Your task to perform on an android device: Open network settings Image 0: 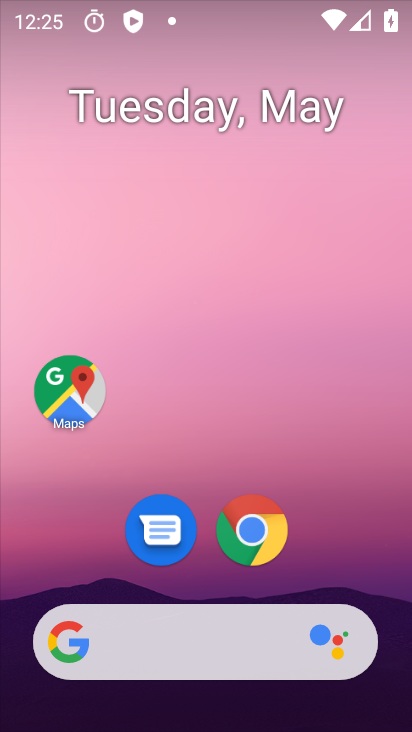
Step 0: drag from (352, 532) to (235, 56)
Your task to perform on an android device: Open network settings Image 1: 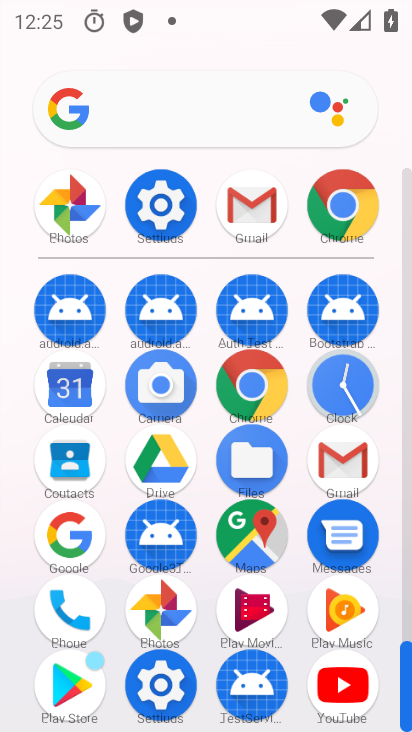
Step 1: drag from (23, 579) to (8, 247)
Your task to perform on an android device: Open network settings Image 2: 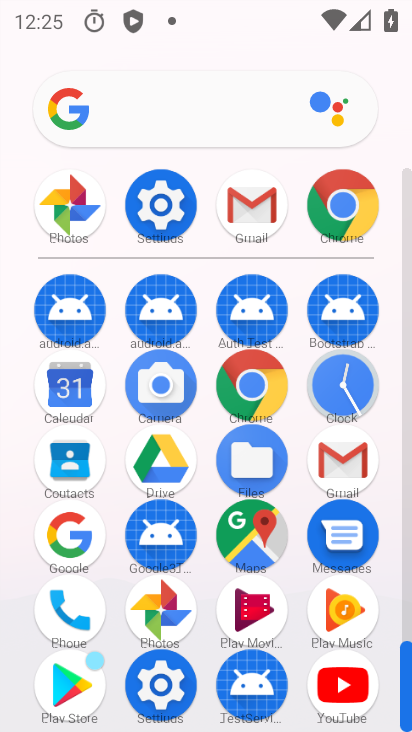
Step 2: click (162, 679)
Your task to perform on an android device: Open network settings Image 3: 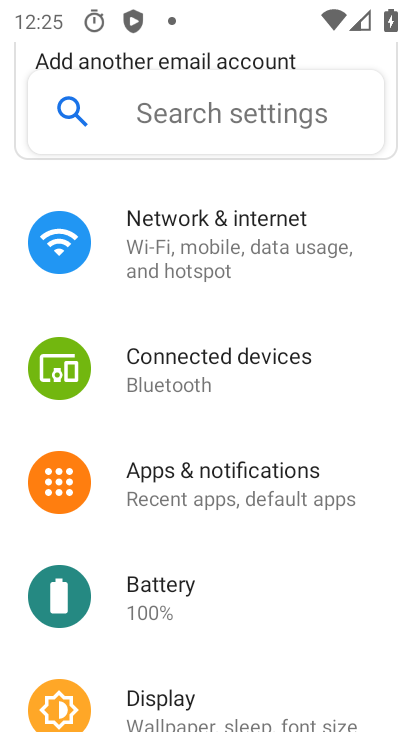
Step 3: drag from (281, 245) to (251, 604)
Your task to perform on an android device: Open network settings Image 4: 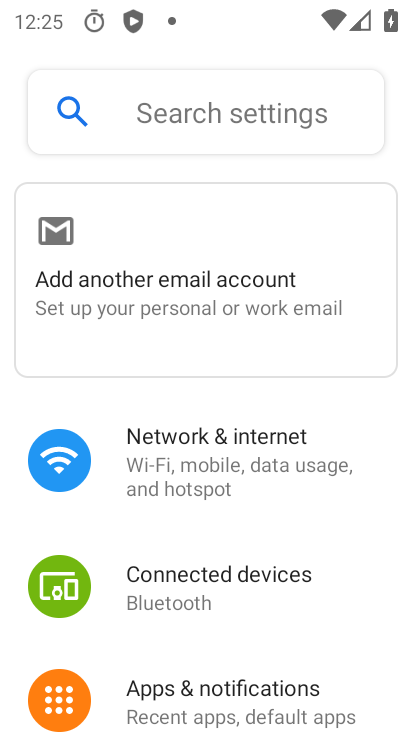
Step 4: click (246, 461)
Your task to perform on an android device: Open network settings Image 5: 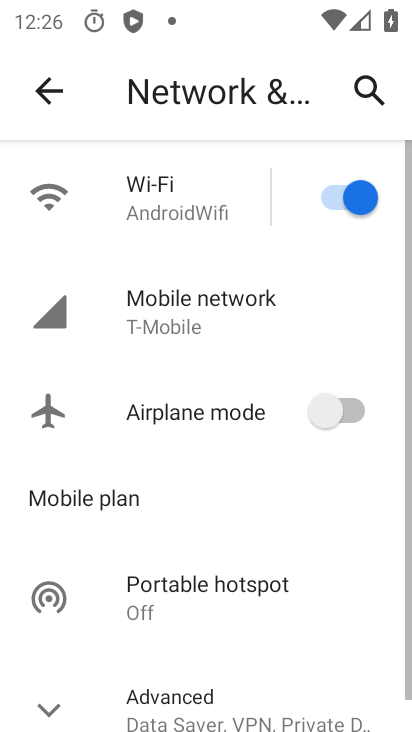
Step 5: click (226, 286)
Your task to perform on an android device: Open network settings Image 6: 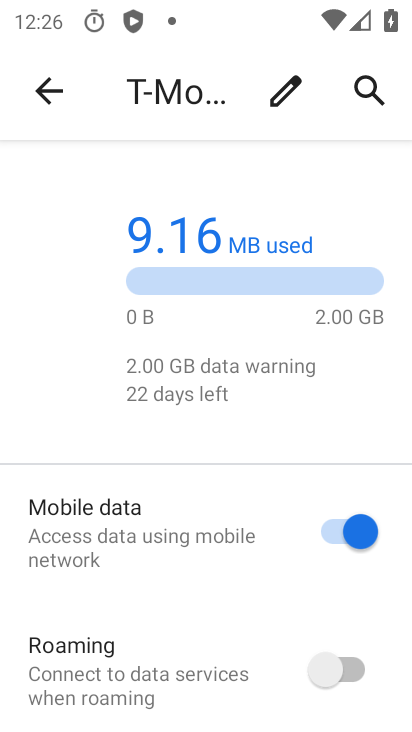
Step 6: drag from (209, 567) to (237, 185)
Your task to perform on an android device: Open network settings Image 7: 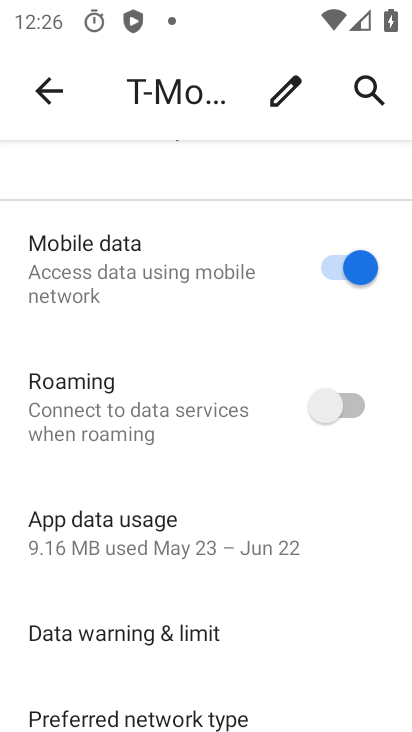
Step 7: drag from (208, 583) to (219, 193)
Your task to perform on an android device: Open network settings Image 8: 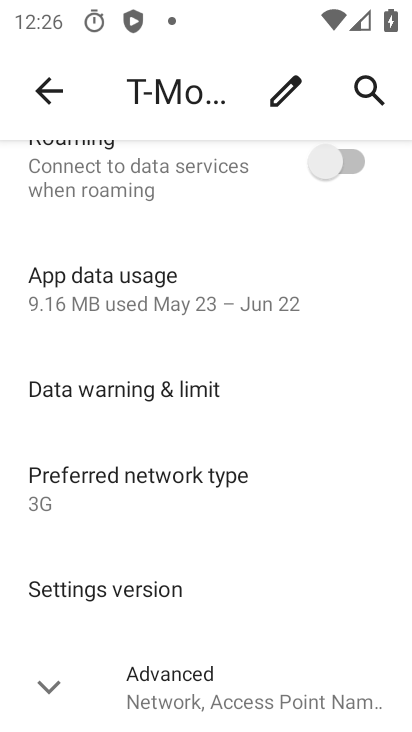
Step 8: drag from (212, 244) to (199, 636)
Your task to perform on an android device: Open network settings Image 9: 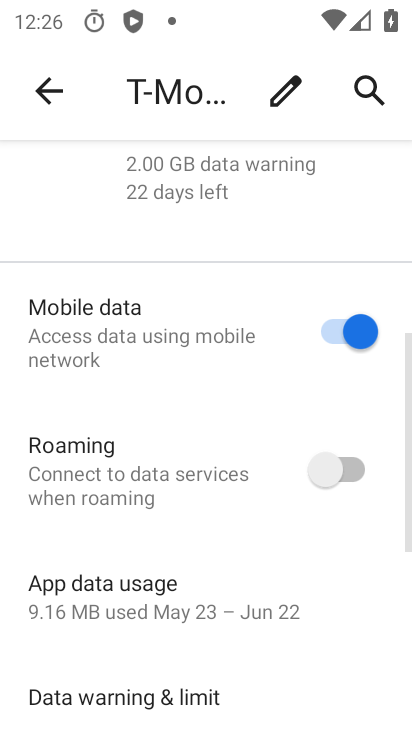
Step 9: drag from (186, 639) to (247, 193)
Your task to perform on an android device: Open network settings Image 10: 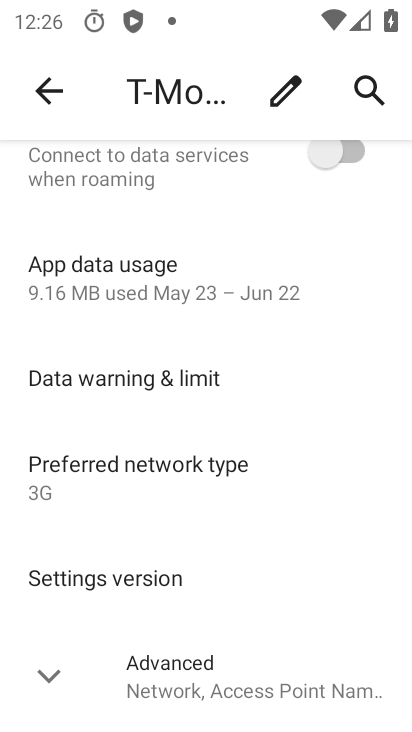
Step 10: click (30, 677)
Your task to perform on an android device: Open network settings Image 11: 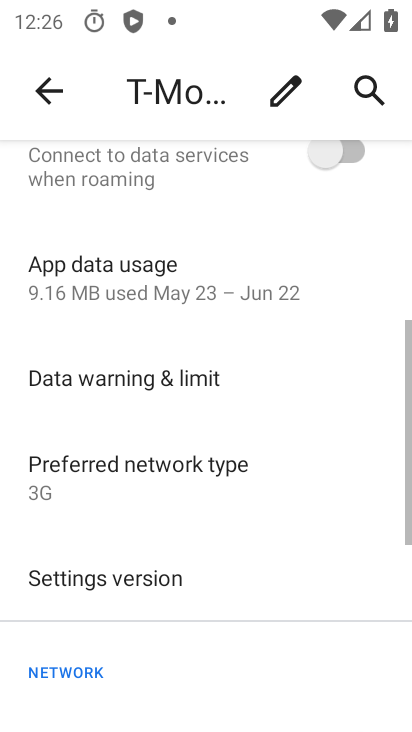
Step 11: task complete